Your task to perform on an android device: What is the recent news? Image 0: 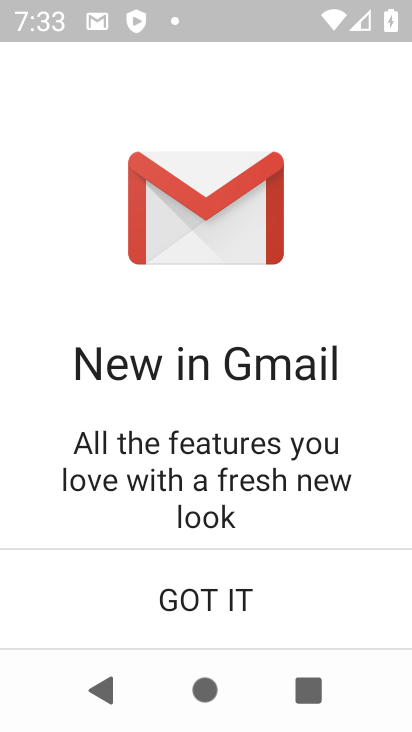
Step 0: press home button
Your task to perform on an android device: What is the recent news? Image 1: 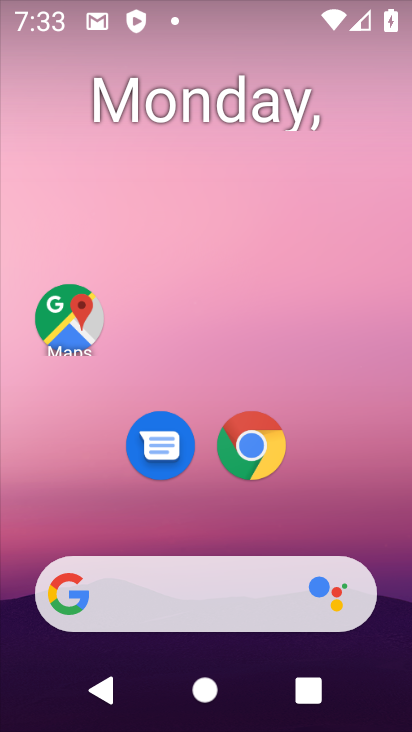
Step 1: click (166, 602)
Your task to perform on an android device: What is the recent news? Image 2: 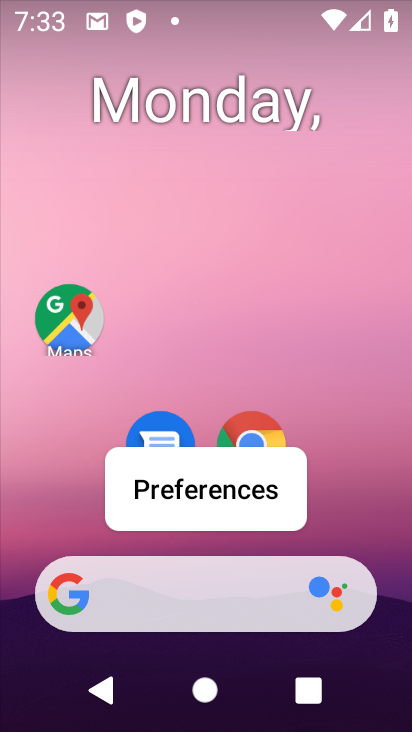
Step 2: click (248, 576)
Your task to perform on an android device: What is the recent news? Image 3: 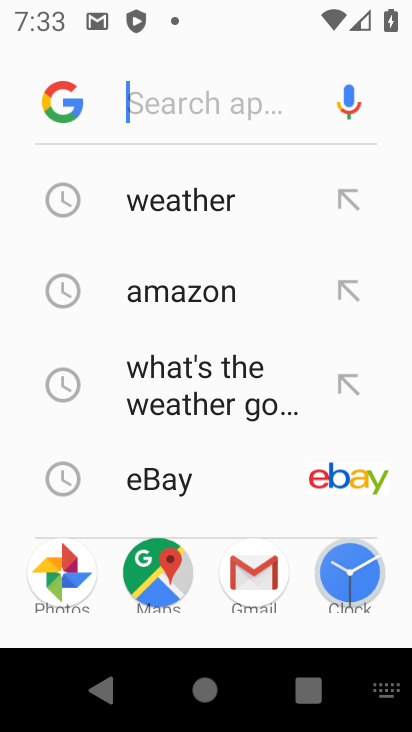
Step 3: type "recent news"
Your task to perform on an android device: What is the recent news? Image 4: 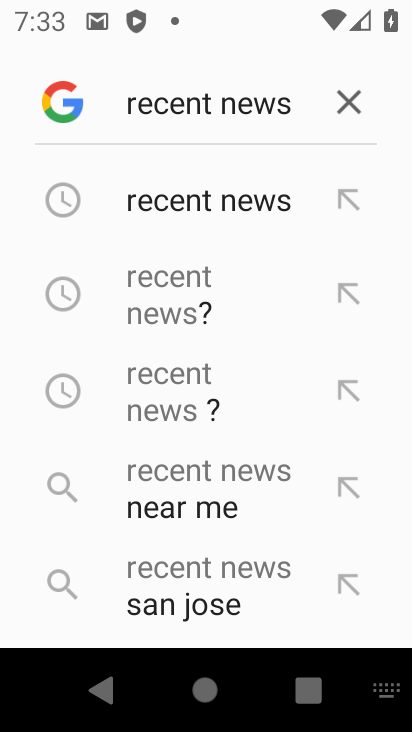
Step 4: click (268, 209)
Your task to perform on an android device: What is the recent news? Image 5: 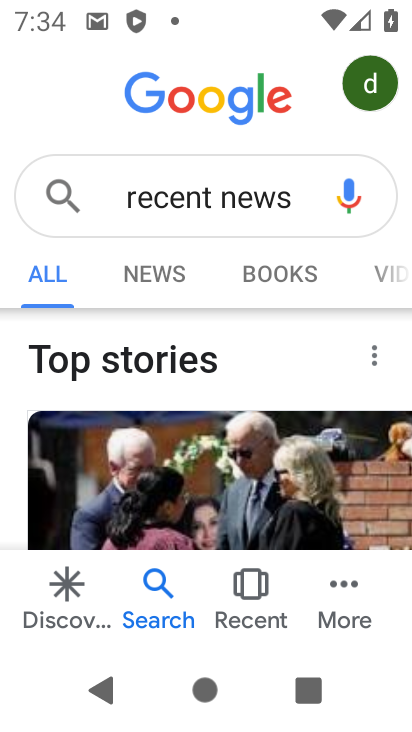
Step 5: task complete